Your task to perform on an android device: turn smart compose on in the gmail app Image 0: 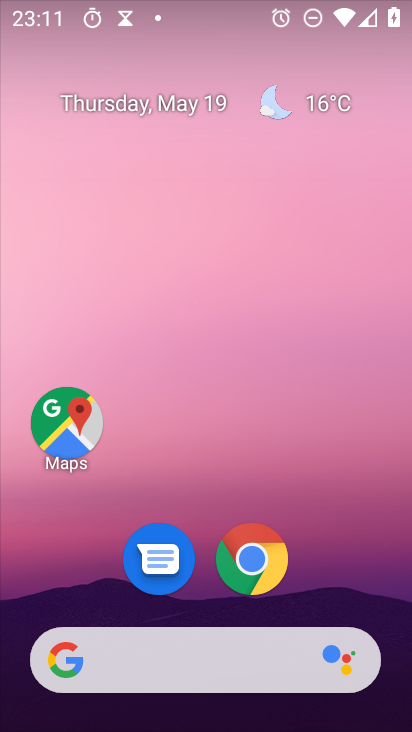
Step 0: drag from (202, 654) to (170, 106)
Your task to perform on an android device: turn smart compose on in the gmail app Image 1: 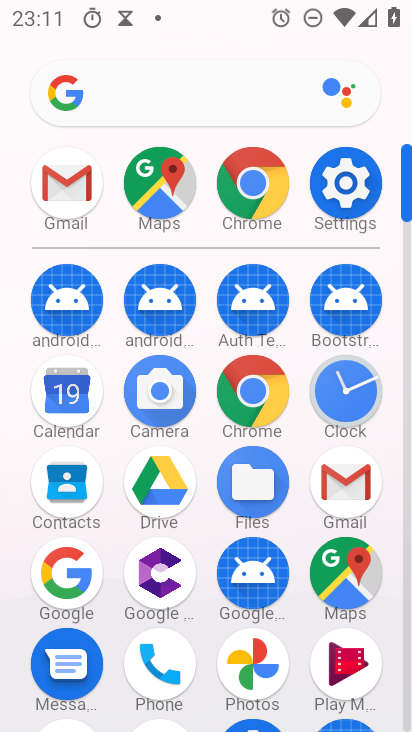
Step 1: click (337, 488)
Your task to perform on an android device: turn smart compose on in the gmail app Image 2: 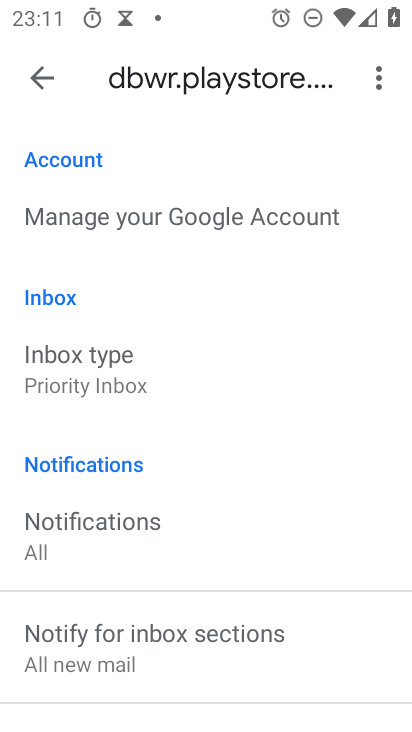
Step 2: task complete